Your task to perform on an android device: Show me popular videos on Youtube Image 0: 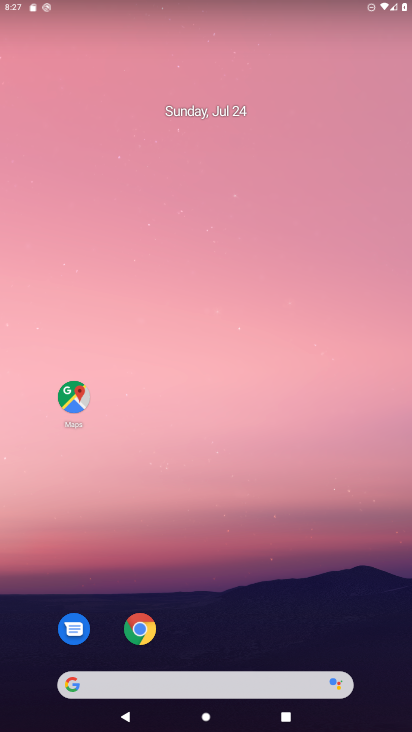
Step 0: drag from (390, 668) to (186, 7)
Your task to perform on an android device: Show me popular videos on Youtube Image 1: 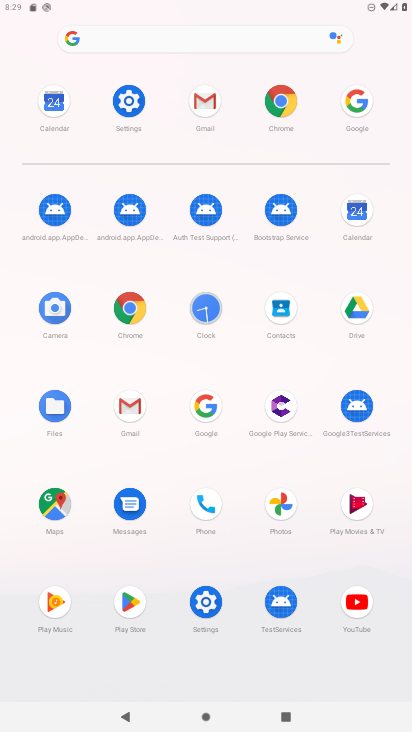
Step 1: click (363, 607)
Your task to perform on an android device: Show me popular videos on Youtube Image 2: 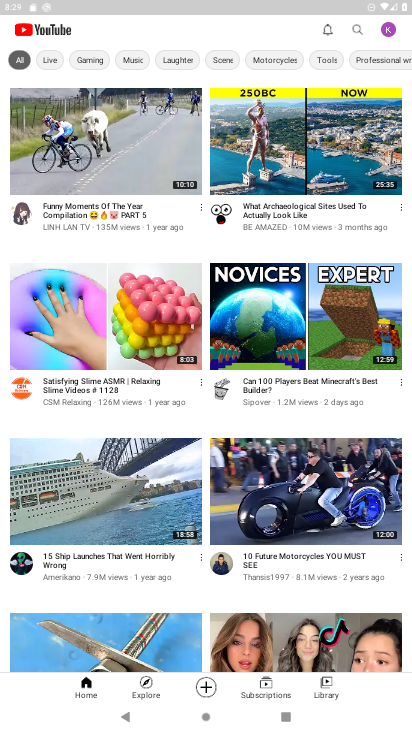
Step 2: click (144, 685)
Your task to perform on an android device: Show me popular videos on Youtube Image 3: 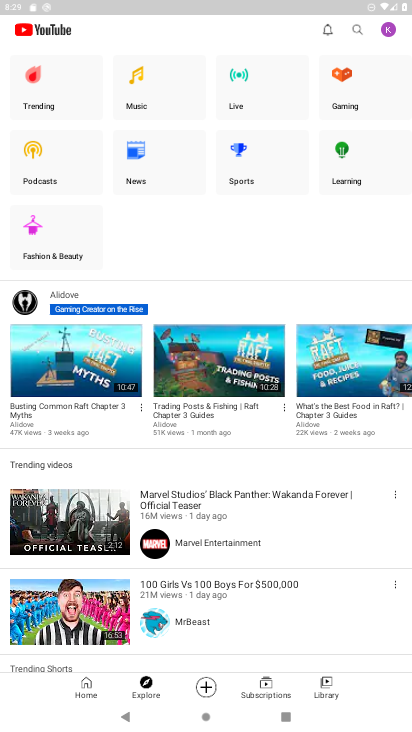
Step 3: click (49, 85)
Your task to perform on an android device: Show me popular videos on Youtube Image 4: 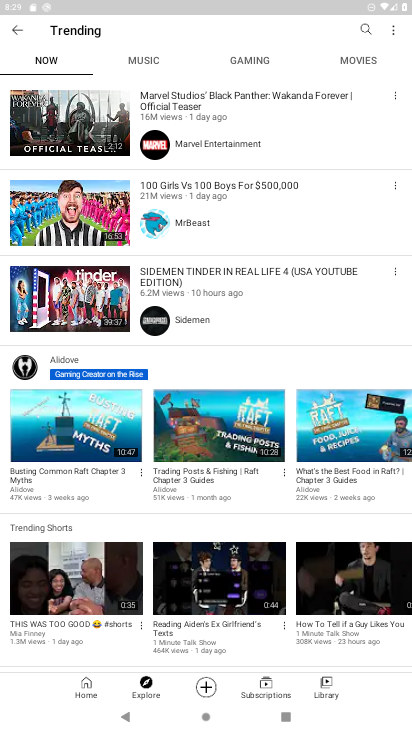
Step 4: task complete